Your task to perform on an android device: set an alarm Image 0: 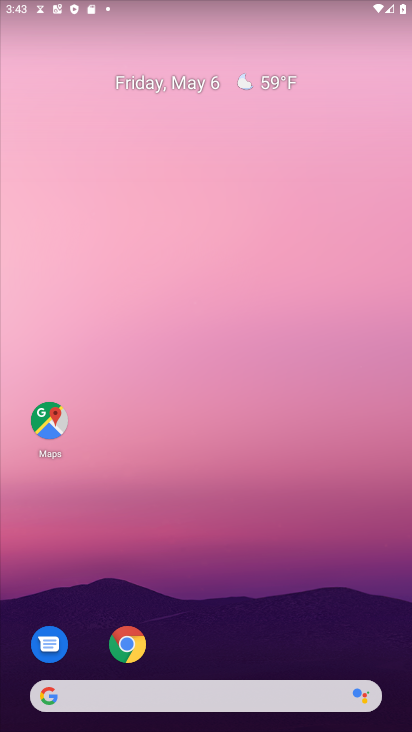
Step 0: drag from (201, 633) to (187, 15)
Your task to perform on an android device: set an alarm Image 1: 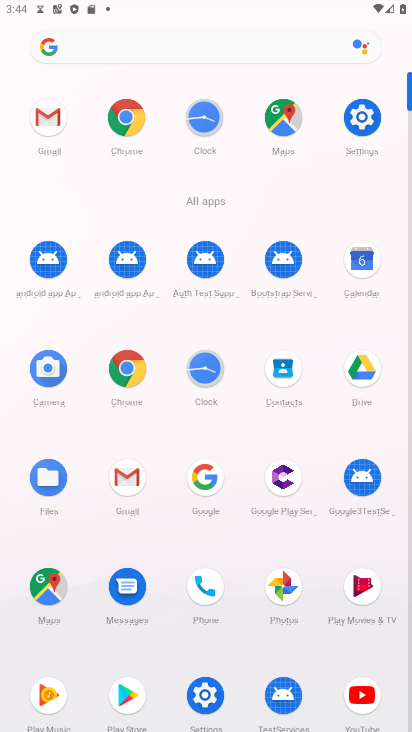
Step 1: click (201, 369)
Your task to perform on an android device: set an alarm Image 2: 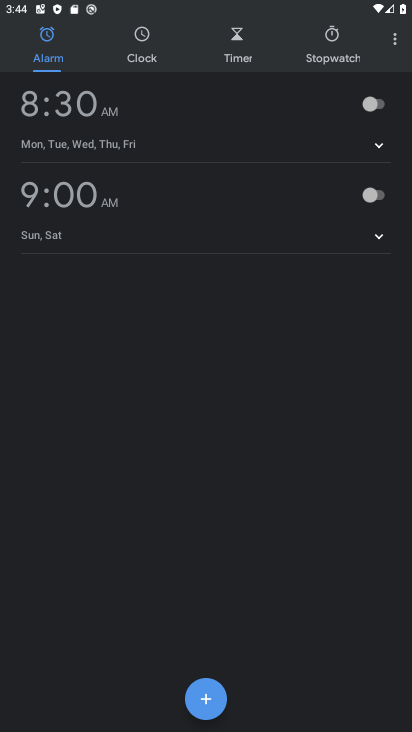
Step 2: click (201, 698)
Your task to perform on an android device: set an alarm Image 3: 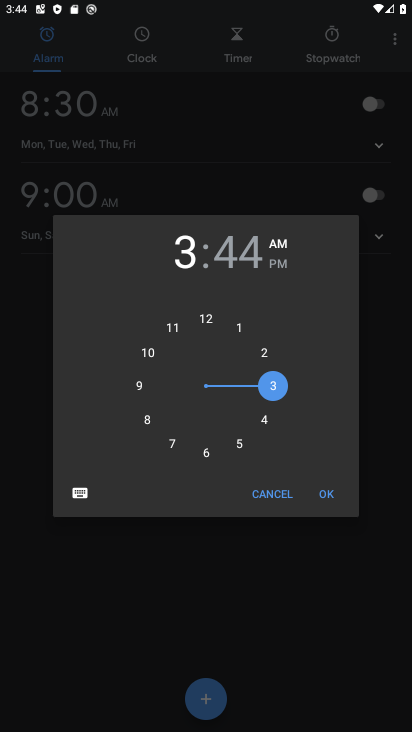
Step 3: click (238, 337)
Your task to perform on an android device: set an alarm Image 4: 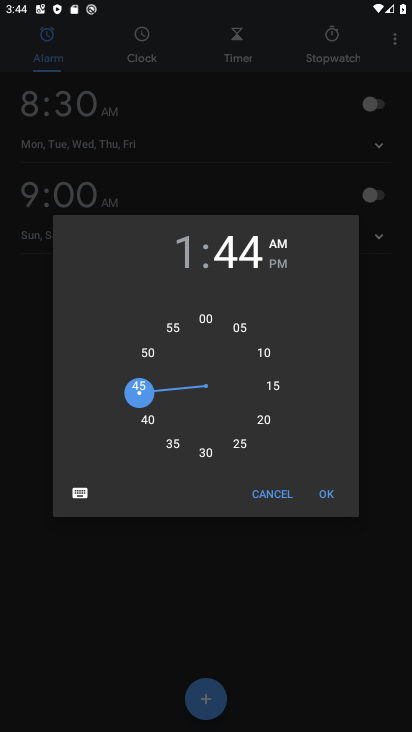
Step 4: click (188, 262)
Your task to perform on an android device: set an alarm Image 5: 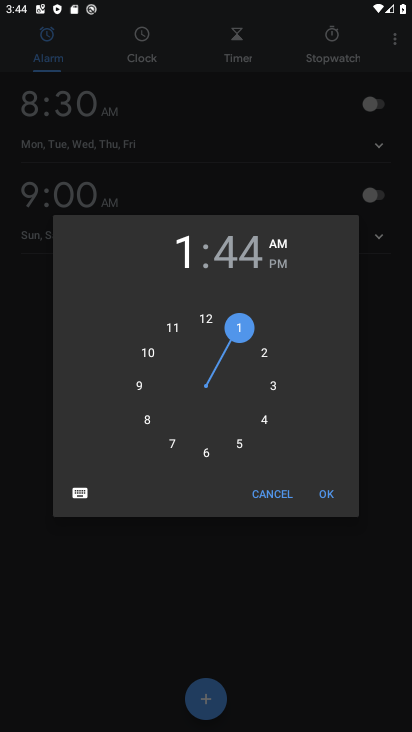
Step 5: drag from (253, 325) to (183, 325)
Your task to perform on an android device: set an alarm Image 6: 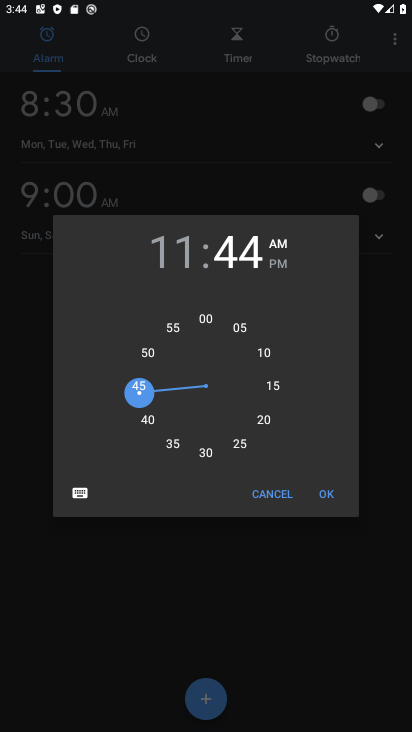
Step 6: drag from (146, 386) to (208, 325)
Your task to perform on an android device: set an alarm Image 7: 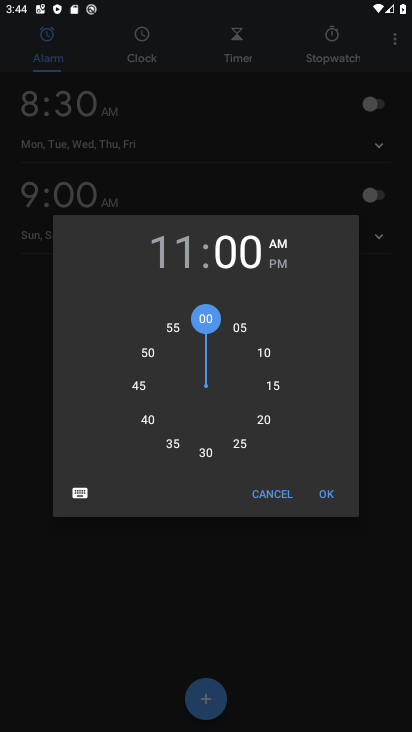
Step 7: click (283, 262)
Your task to perform on an android device: set an alarm Image 8: 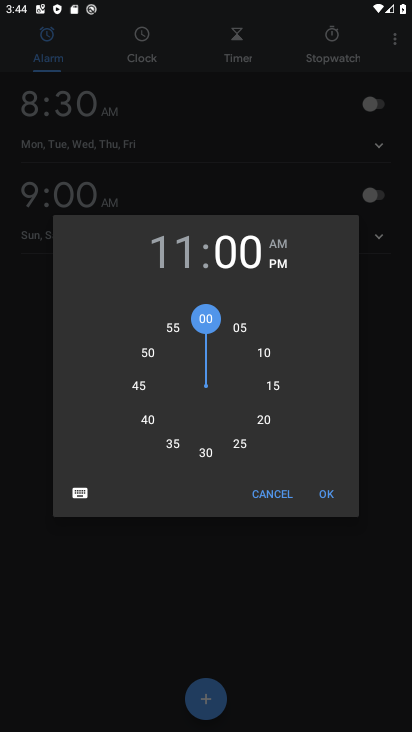
Step 8: click (329, 497)
Your task to perform on an android device: set an alarm Image 9: 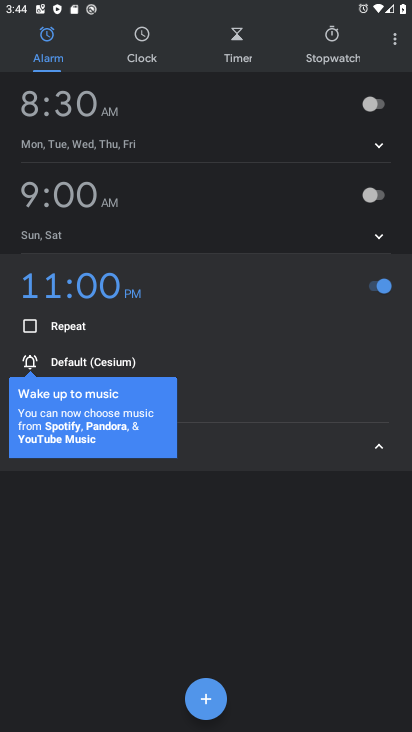
Step 9: click (378, 448)
Your task to perform on an android device: set an alarm Image 10: 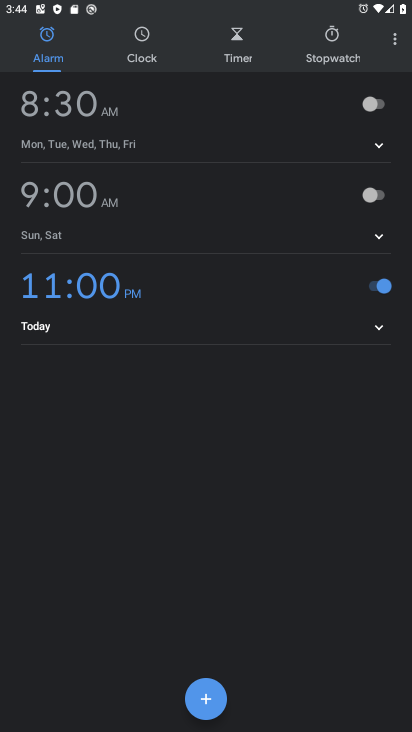
Step 10: task complete